Your task to perform on an android device: Go to Yahoo.com Image 0: 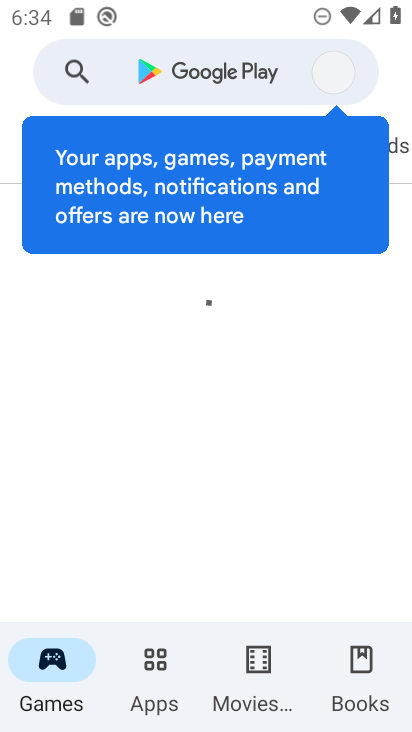
Step 0: press home button
Your task to perform on an android device: Go to Yahoo.com Image 1: 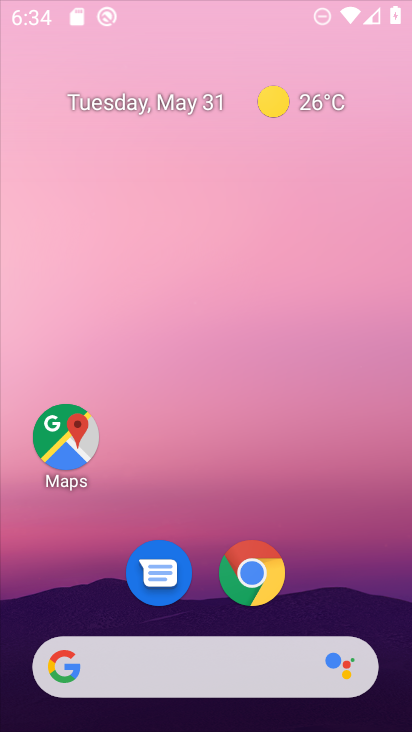
Step 1: drag from (375, 641) to (194, 34)
Your task to perform on an android device: Go to Yahoo.com Image 2: 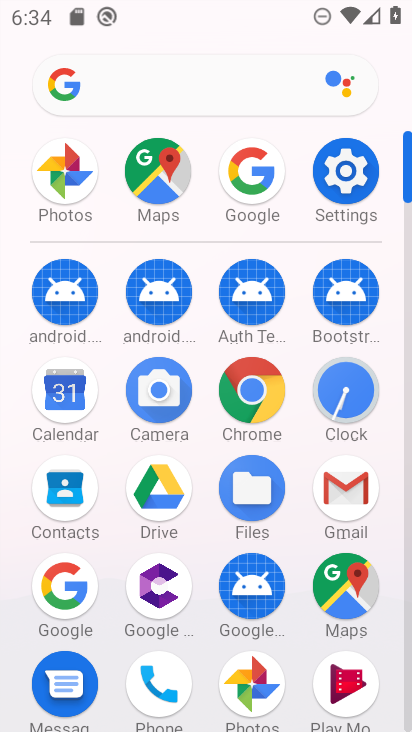
Step 2: click (76, 591)
Your task to perform on an android device: Go to Yahoo.com Image 3: 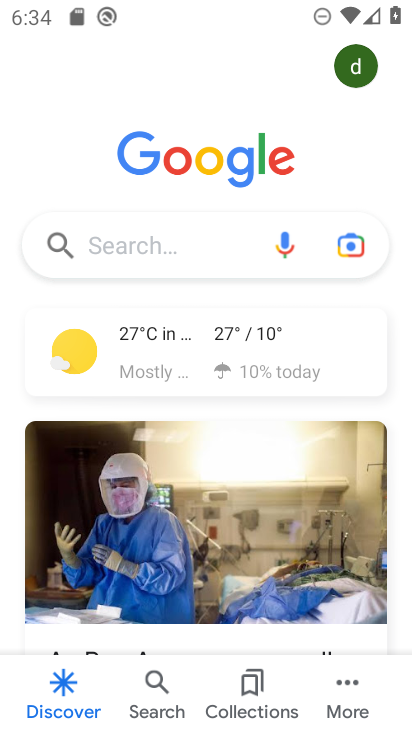
Step 3: click (137, 260)
Your task to perform on an android device: Go to Yahoo.com Image 4: 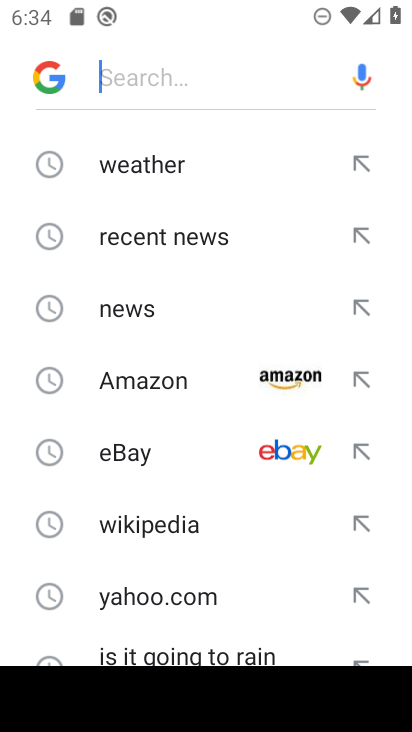
Step 4: click (151, 613)
Your task to perform on an android device: Go to Yahoo.com Image 5: 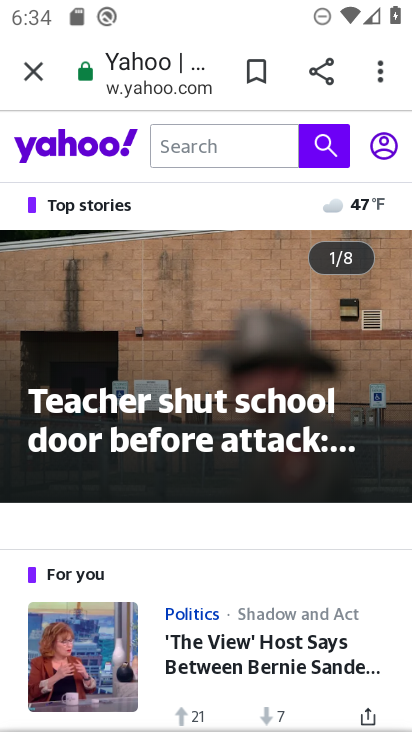
Step 5: task complete